Your task to perform on an android device: toggle priority inbox in the gmail app Image 0: 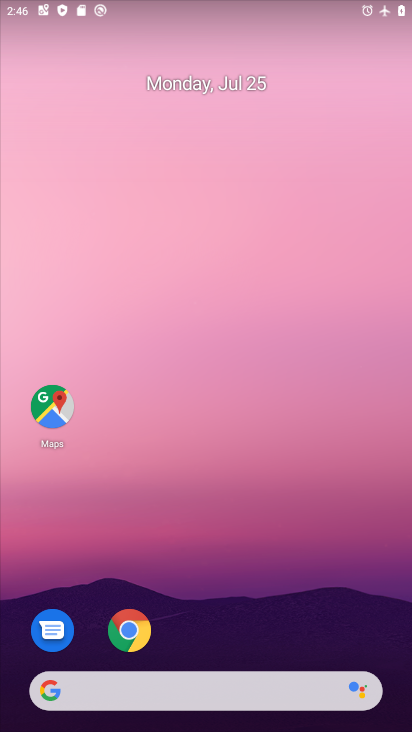
Step 0: drag from (311, 646) to (352, 109)
Your task to perform on an android device: toggle priority inbox in the gmail app Image 1: 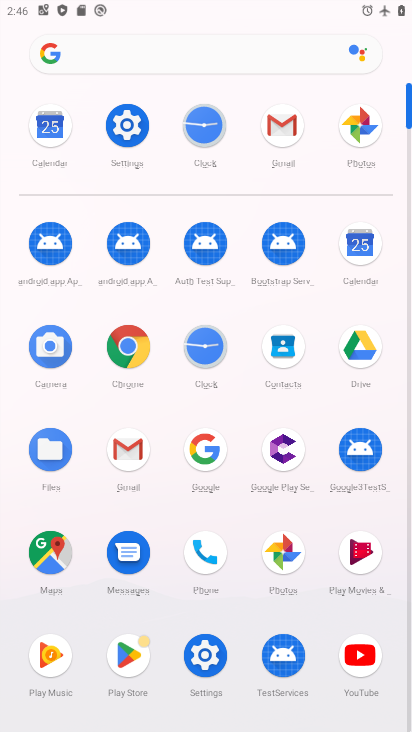
Step 1: click (276, 168)
Your task to perform on an android device: toggle priority inbox in the gmail app Image 2: 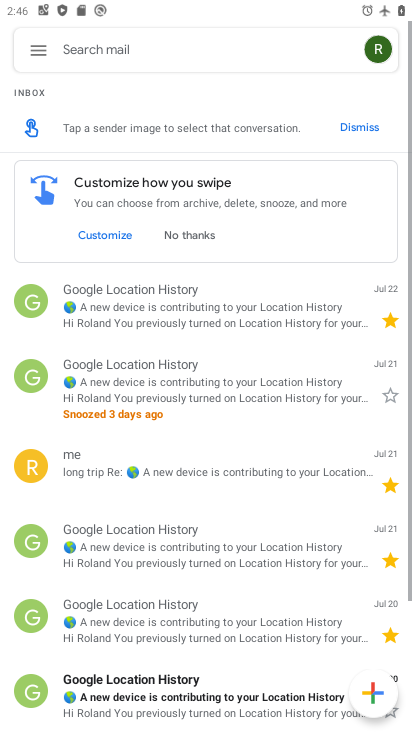
Step 2: task complete